Your task to perform on an android device: allow notifications from all sites in the chrome app Image 0: 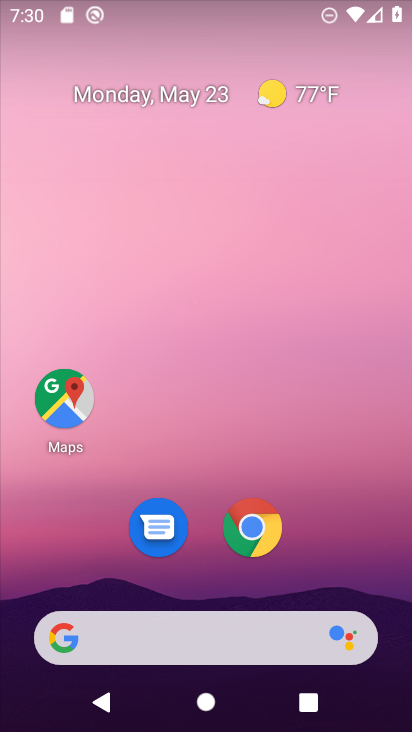
Step 0: press home button
Your task to perform on an android device: allow notifications from all sites in the chrome app Image 1: 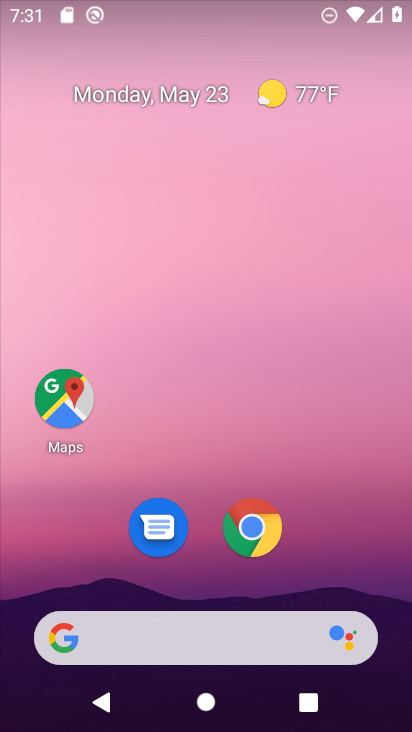
Step 1: drag from (291, 558) to (325, 148)
Your task to perform on an android device: allow notifications from all sites in the chrome app Image 2: 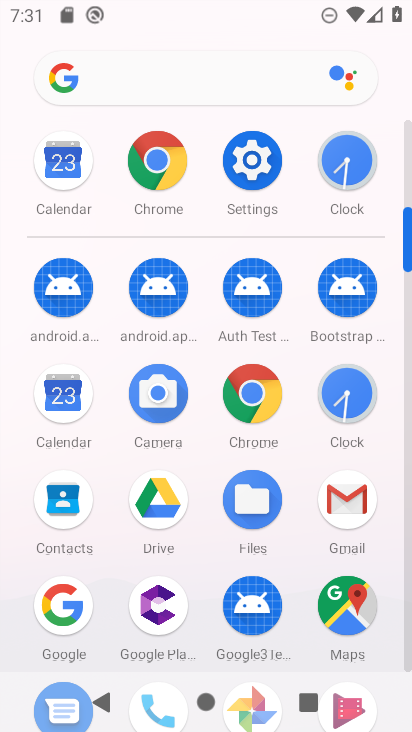
Step 2: click (263, 389)
Your task to perform on an android device: allow notifications from all sites in the chrome app Image 3: 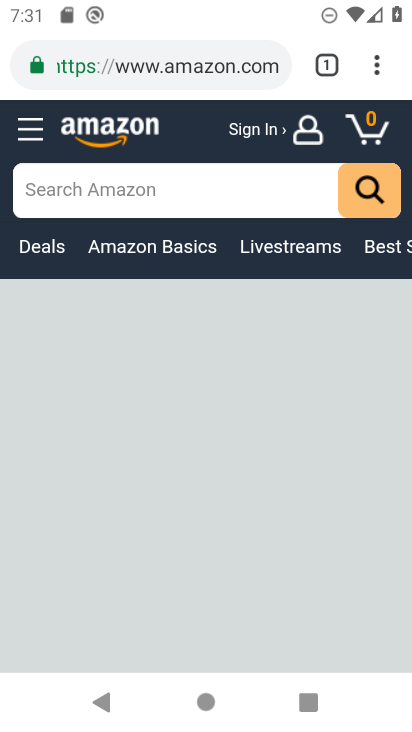
Step 3: click (366, 80)
Your task to perform on an android device: allow notifications from all sites in the chrome app Image 4: 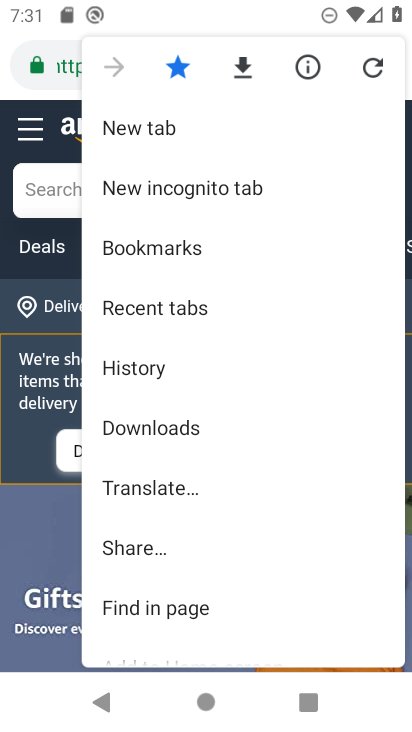
Step 4: drag from (172, 599) to (219, 426)
Your task to perform on an android device: allow notifications from all sites in the chrome app Image 5: 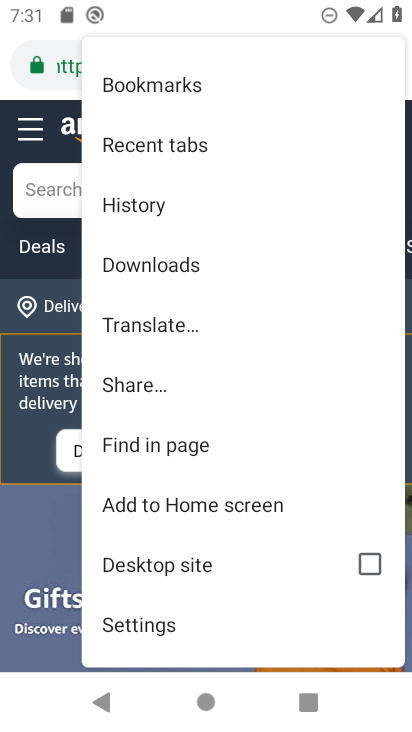
Step 5: click (180, 622)
Your task to perform on an android device: allow notifications from all sites in the chrome app Image 6: 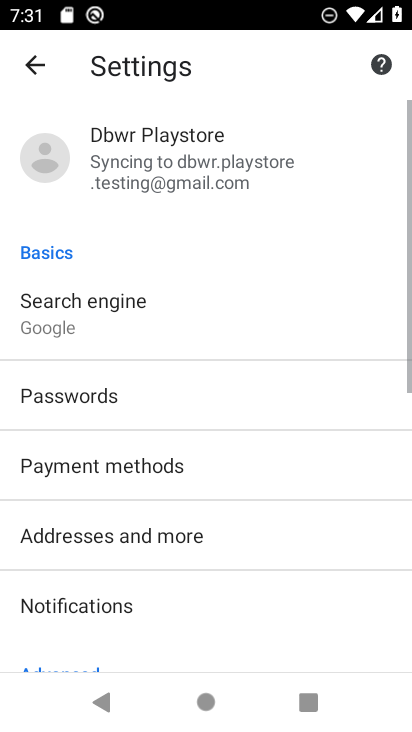
Step 6: drag from (205, 520) to (196, 245)
Your task to perform on an android device: allow notifications from all sites in the chrome app Image 7: 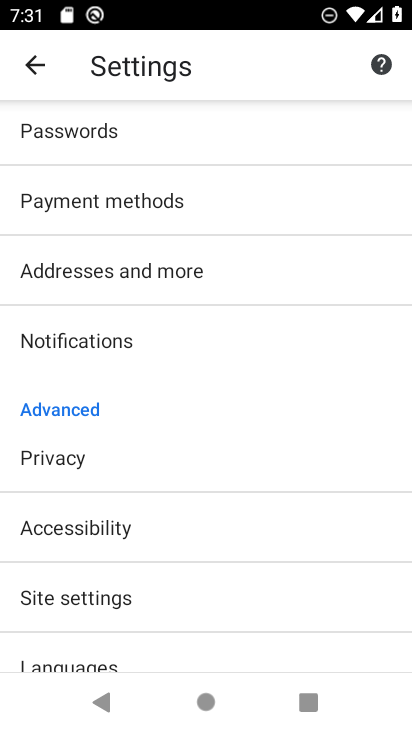
Step 7: click (84, 603)
Your task to perform on an android device: allow notifications from all sites in the chrome app Image 8: 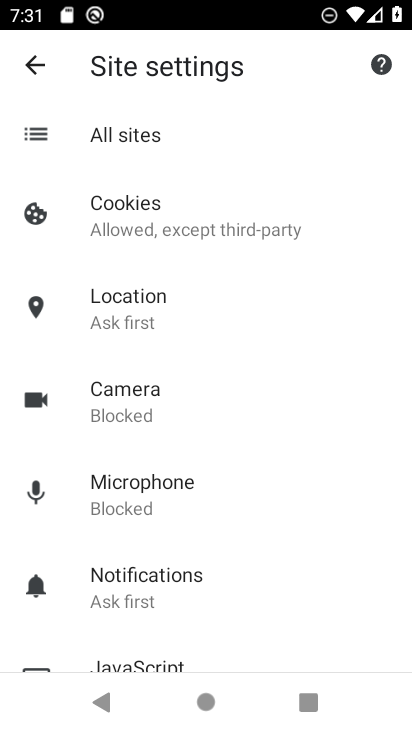
Step 8: click (164, 213)
Your task to perform on an android device: allow notifications from all sites in the chrome app Image 9: 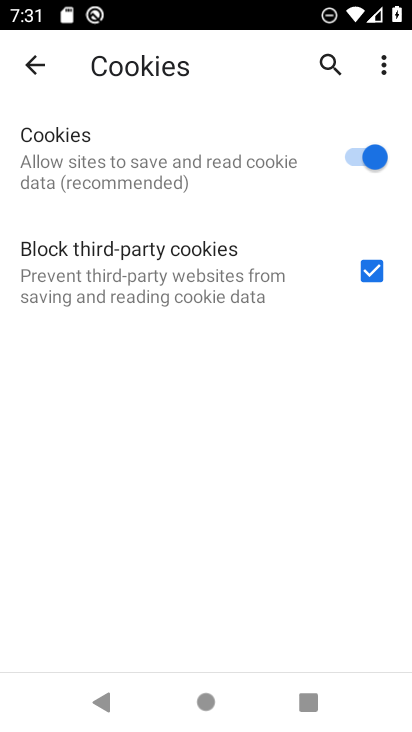
Step 9: click (35, 70)
Your task to perform on an android device: allow notifications from all sites in the chrome app Image 10: 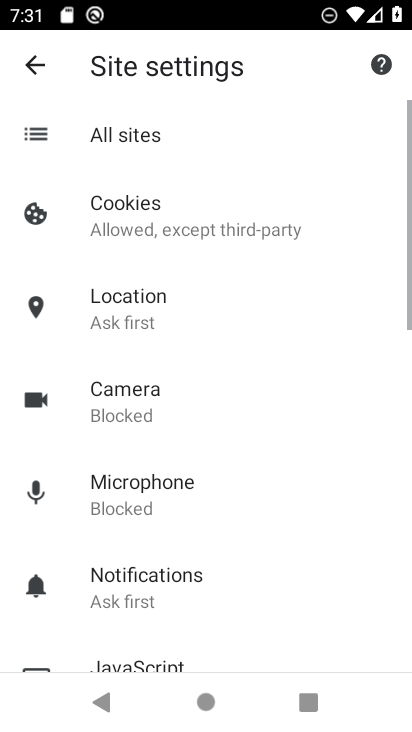
Step 10: click (154, 571)
Your task to perform on an android device: allow notifications from all sites in the chrome app Image 11: 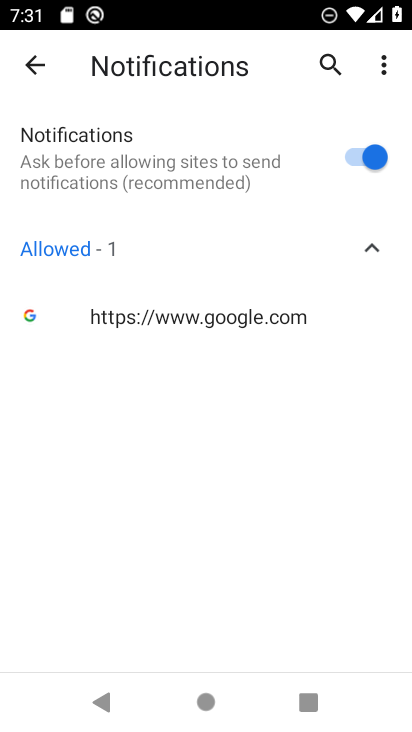
Step 11: click (361, 153)
Your task to perform on an android device: allow notifications from all sites in the chrome app Image 12: 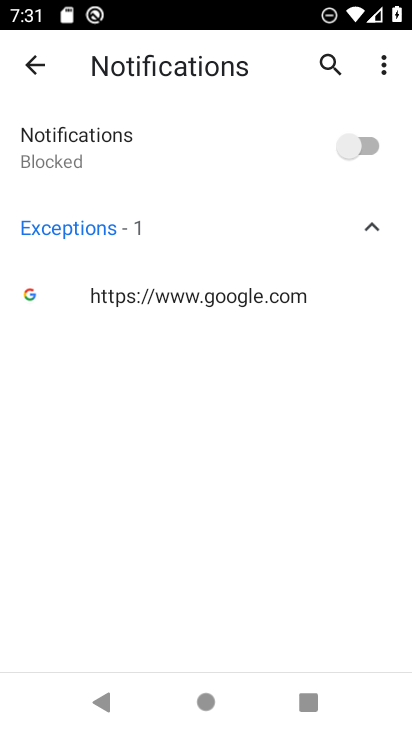
Step 12: click (361, 153)
Your task to perform on an android device: allow notifications from all sites in the chrome app Image 13: 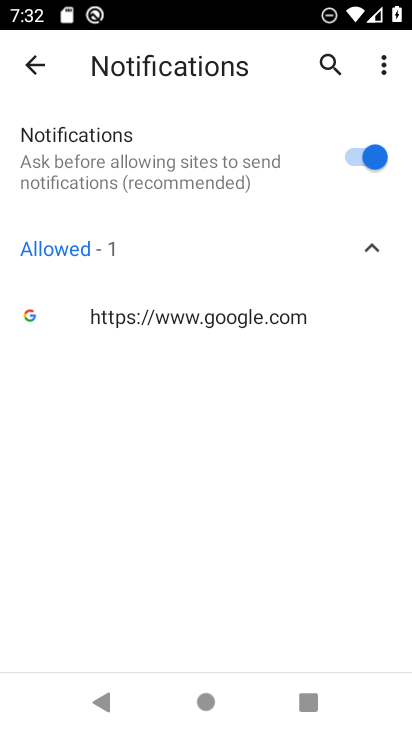
Step 13: task complete